Your task to perform on an android device: check out phone information Image 0: 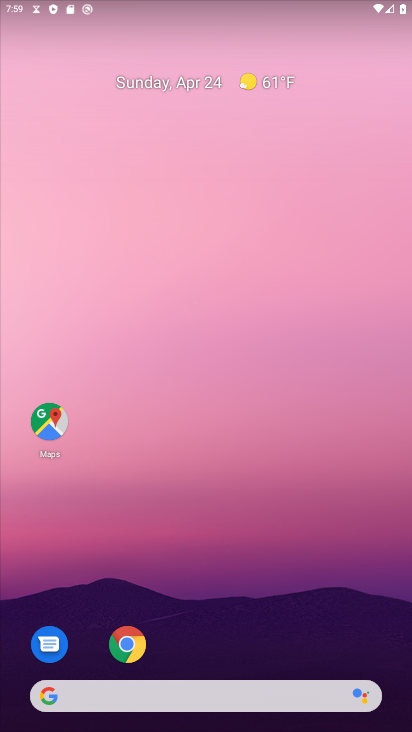
Step 0: drag from (247, 675) to (245, 126)
Your task to perform on an android device: check out phone information Image 1: 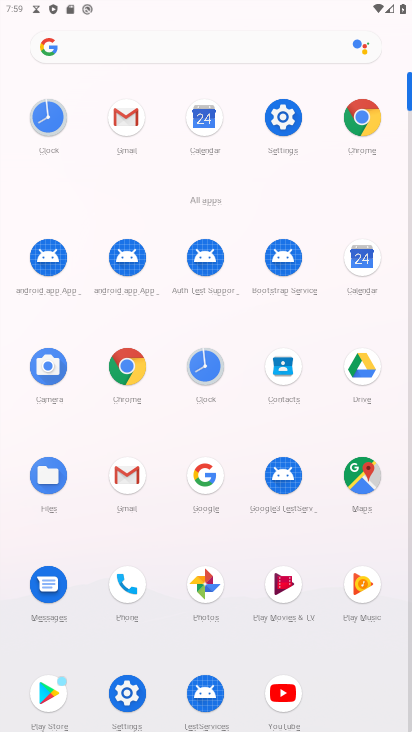
Step 1: click (126, 692)
Your task to perform on an android device: check out phone information Image 2: 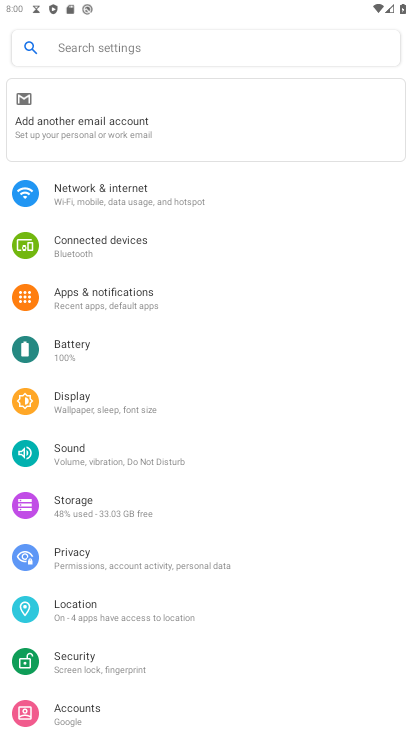
Step 2: drag from (162, 667) to (180, 87)
Your task to perform on an android device: check out phone information Image 3: 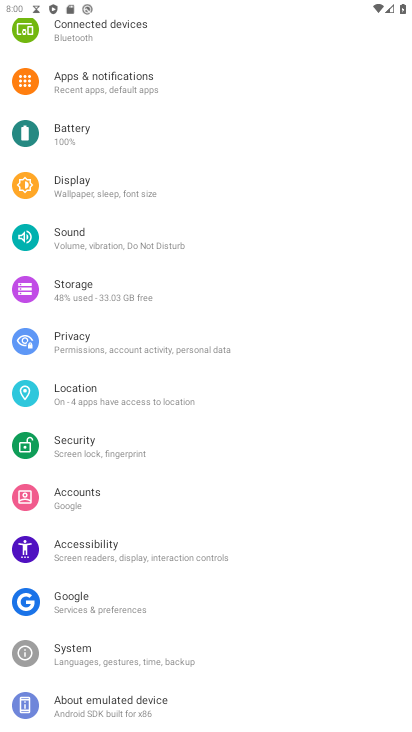
Step 3: click (111, 694)
Your task to perform on an android device: check out phone information Image 4: 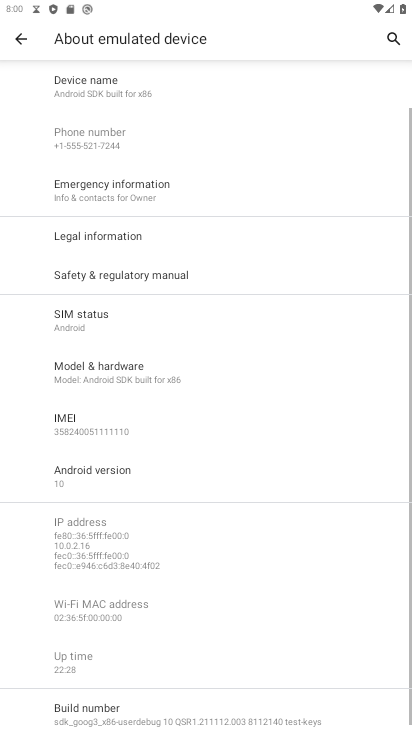
Step 4: task complete